Your task to perform on an android device: turn on showing notifications on the lock screen Image 0: 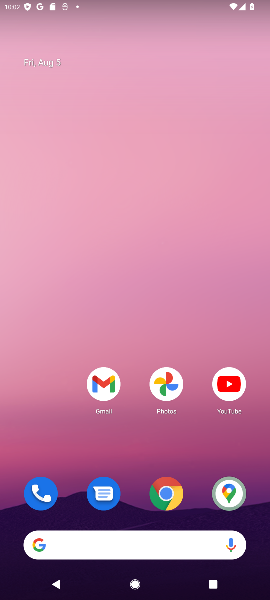
Step 0: drag from (133, 460) to (144, 58)
Your task to perform on an android device: turn on showing notifications on the lock screen Image 1: 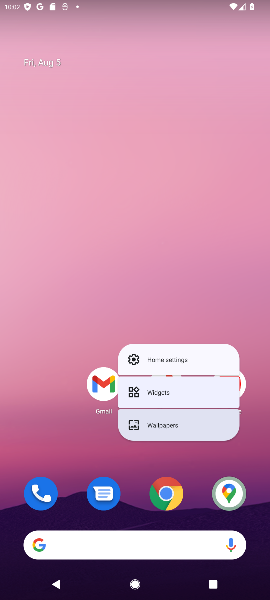
Step 1: click (113, 264)
Your task to perform on an android device: turn on showing notifications on the lock screen Image 2: 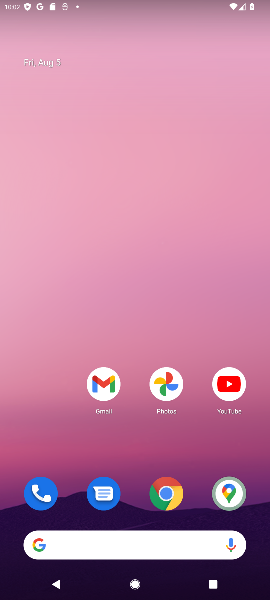
Step 2: drag from (132, 482) to (158, 5)
Your task to perform on an android device: turn on showing notifications on the lock screen Image 3: 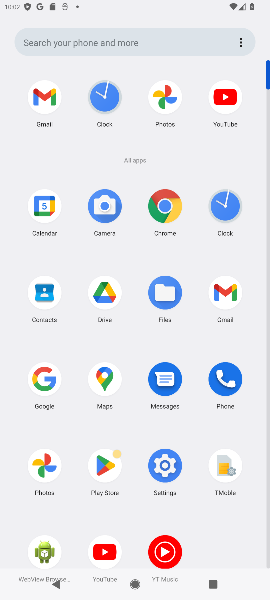
Step 3: click (164, 459)
Your task to perform on an android device: turn on showing notifications on the lock screen Image 4: 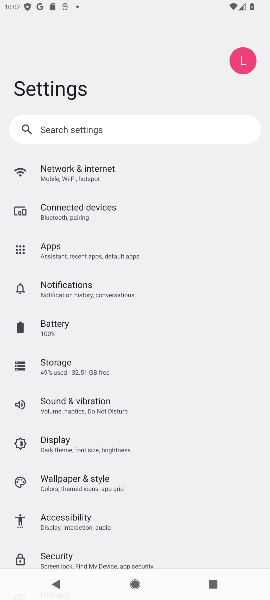
Step 4: click (100, 285)
Your task to perform on an android device: turn on showing notifications on the lock screen Image 5: 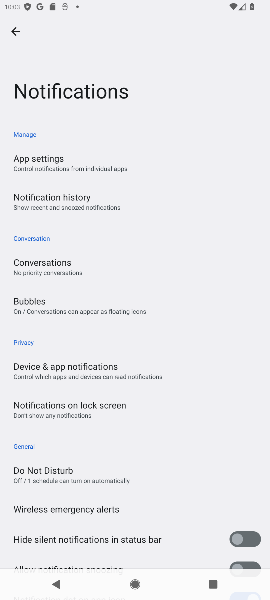
Step 5: click (102, 406)
Your task to perform on an android device: turn on showing notifications on the lock screen Image 6: 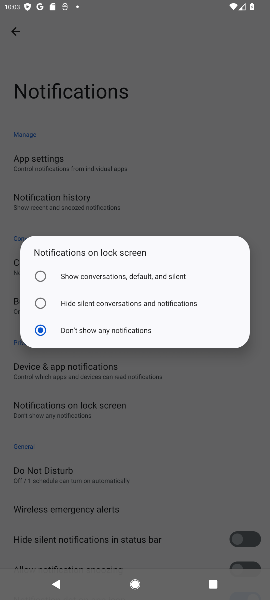
Step 6: click (63, 276)
Your task to perform on an android device: turn on showing notifications on the lock screen Image 7: 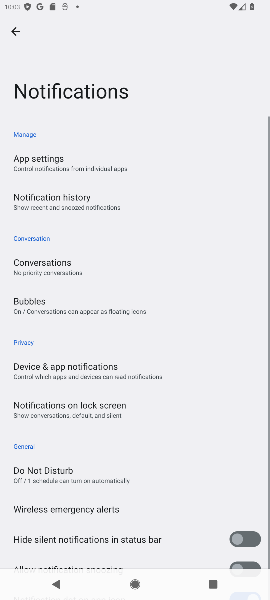
Step 7: task complete